Your task to perform on an android device: What's the weather going to be tomorrow? Image 0: 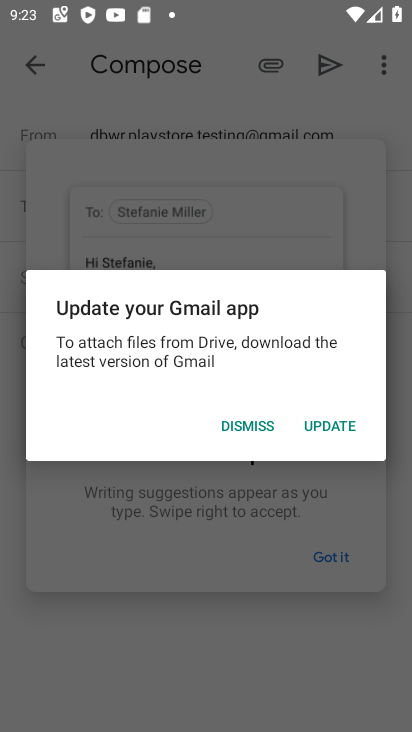
Step 0: press home button
Your task to perform on an android device: What's the weather going to be tomorrow? Image 1: 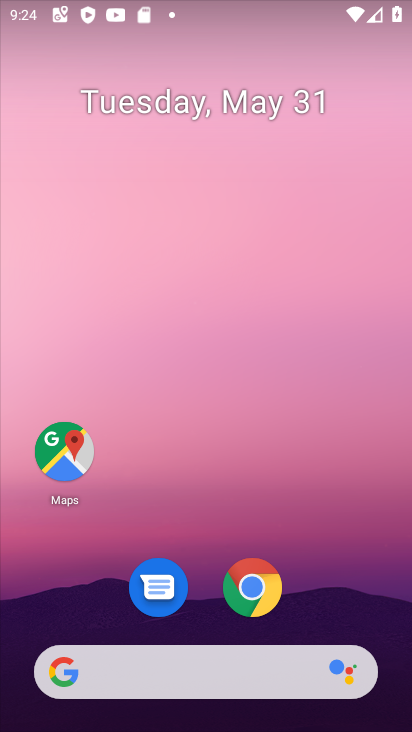
Step 1: drag from (324, 611) to (258, 161)
Your task to perform on an android device: What's the weather going to be tomorrow? Image 2: 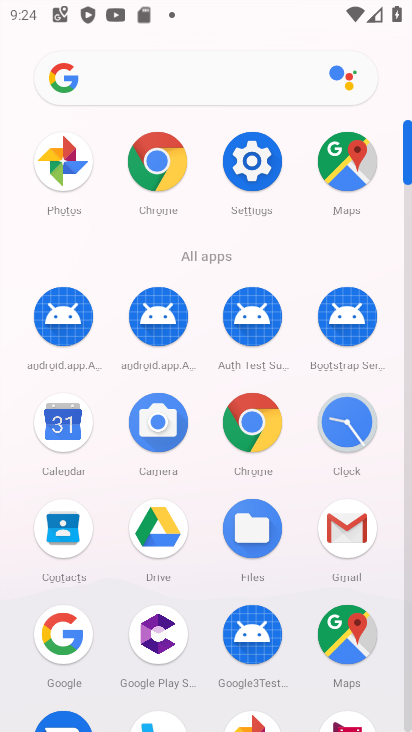
Step 2: click (245, 429)
Your task to perform on an android device: What's the weather going to be tomorrow? Image 3: 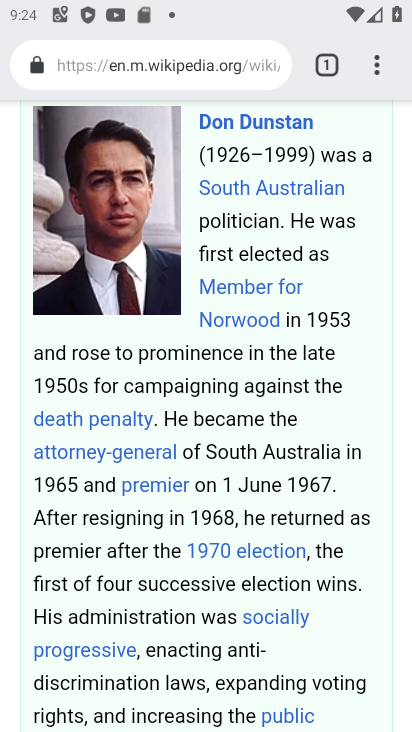
Step 3: click (156, 66)
Your task to perform on an android device: What's the weather going to be tomorrow? Image 4: 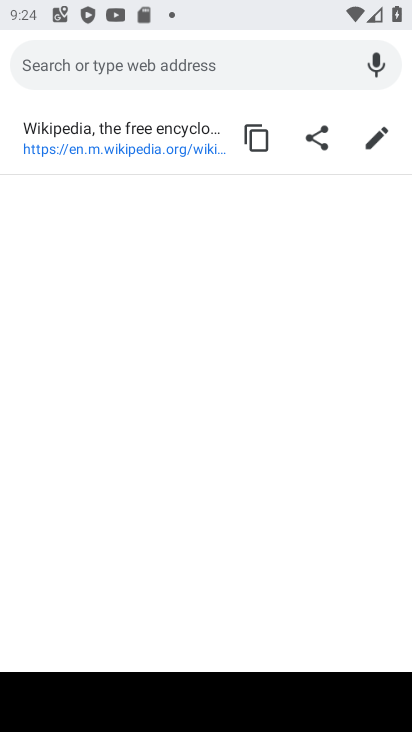
Step 4: type "What's the weather going to be tomorrow?"
Your task to perform on an android device: What's the weather going to be tomorrow? Image 5: 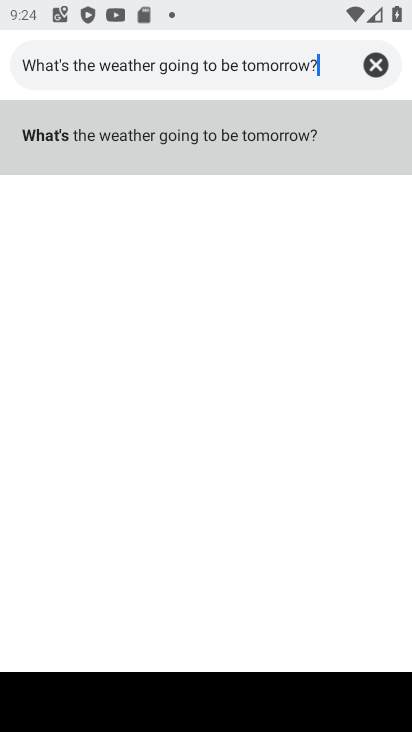
Step 5: click (244, 141)
Your task to perform on an android device: What's the weather going to be tomorrow? Image 6: 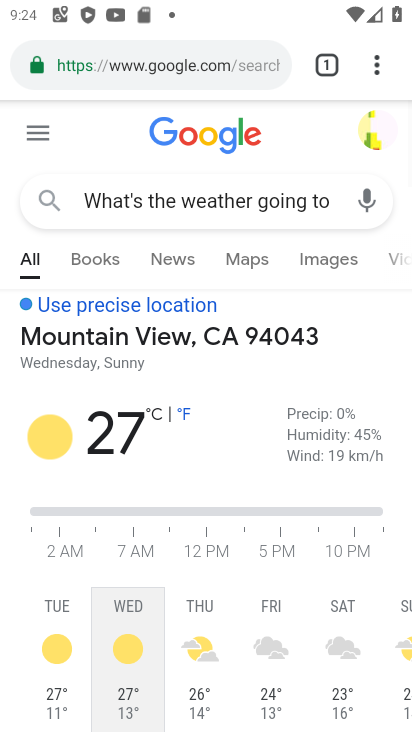
Step 6: task complete